Your task to perform on an android device: delete the emails in spam in the gmail app Image 0: 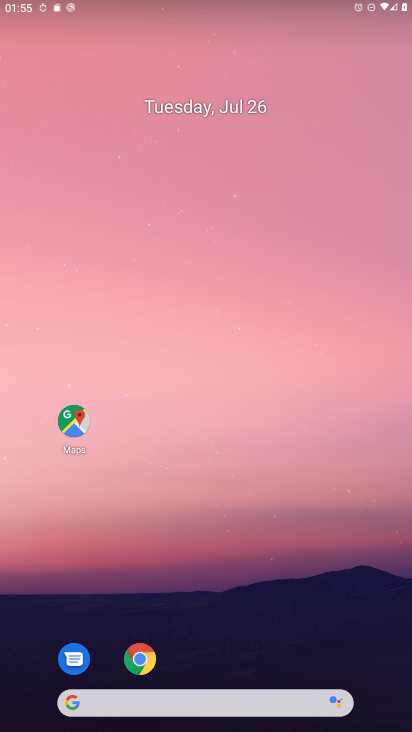
Step 0: press home button
Your task to perform on an android device: delete the emails in spam in the gmail app Image 1: 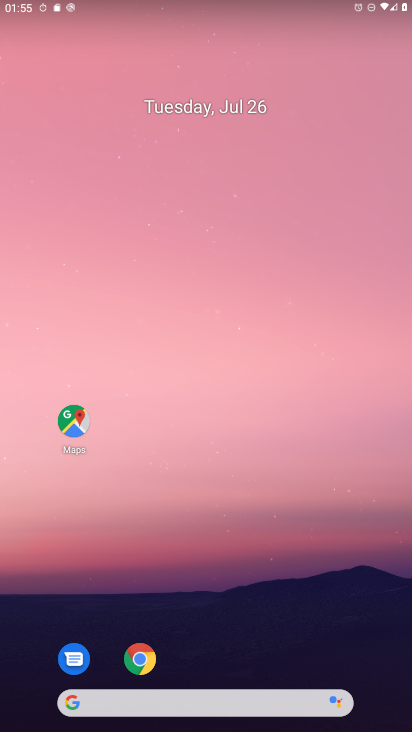
Step 1: drag from (187, 590) to (207, 320)
Your task to perform on an android device: delete the emails in spam in the gmail app Image 2: 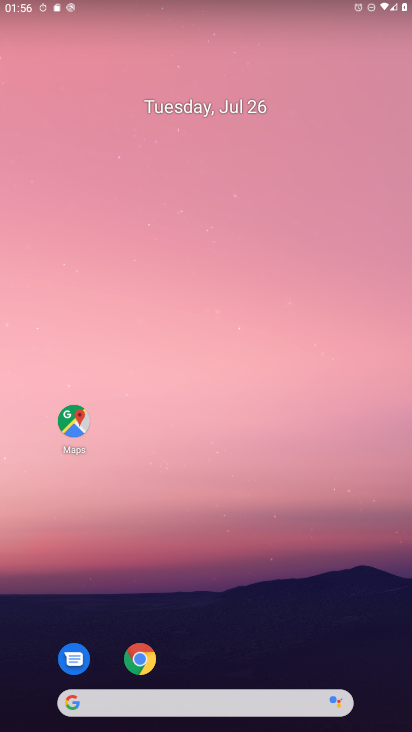
Step 2: drag from (217, 522) to (276, 102)
Your task to perform on an android device: delete the emails in spam in the gmail app Image 3: 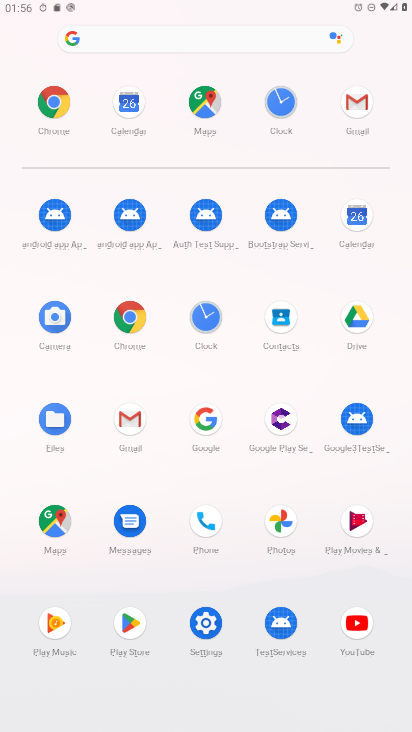
Step 3: click (371, 108)
Your task to perform on an android device: delete the emails in spam in the gmail app Image 4: 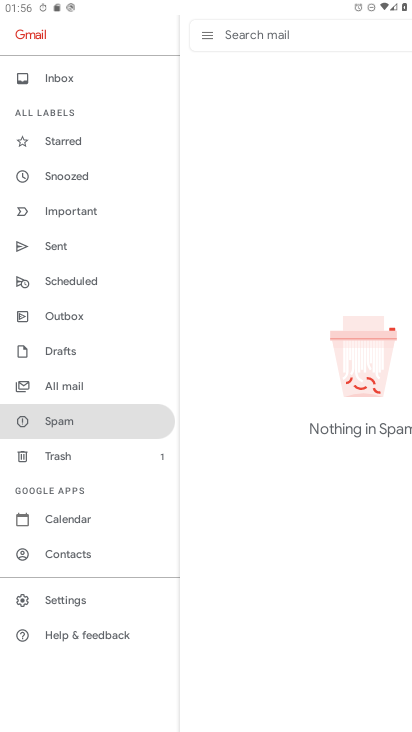
Step 4: task complete